Your task to perform on an android device: Go to sound settings Image 0: 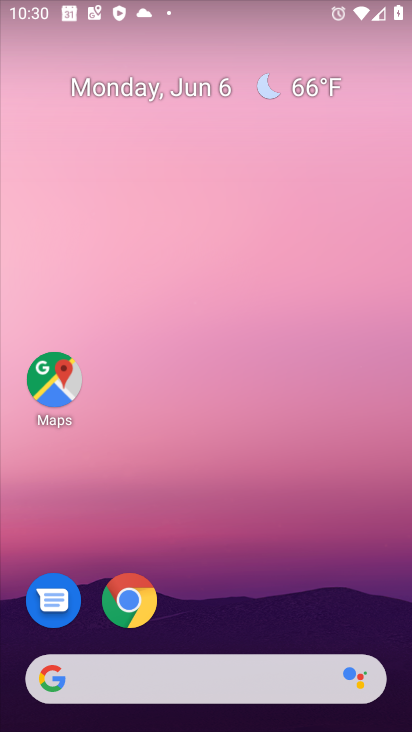
Step 0: drag from (47, 584) to (291, 188)
Your task to perform on an android device: Go to sound settings Image 1: 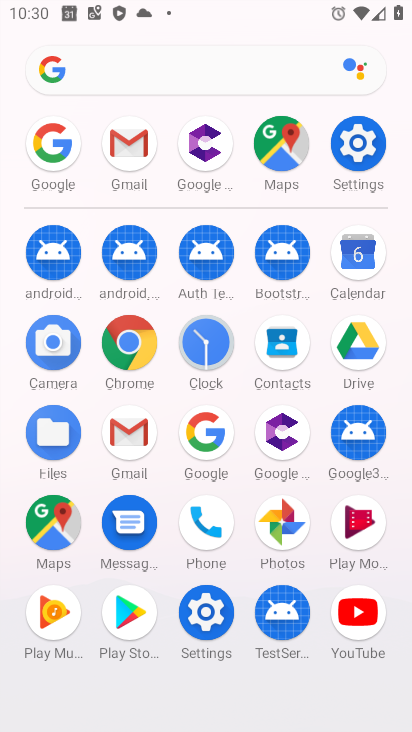
Step 1: click (220, 624)
Your task to perform on an android device: Go to sound settings Image 2: 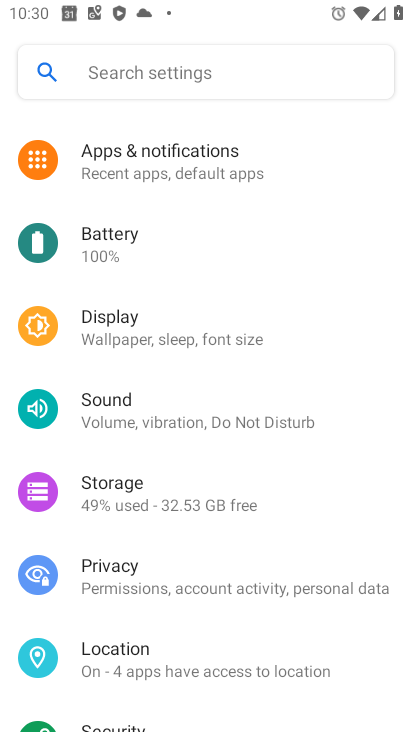
Step 2: click (144, 406)
Your task to perform on an android device: Go to sound settings Image 3: 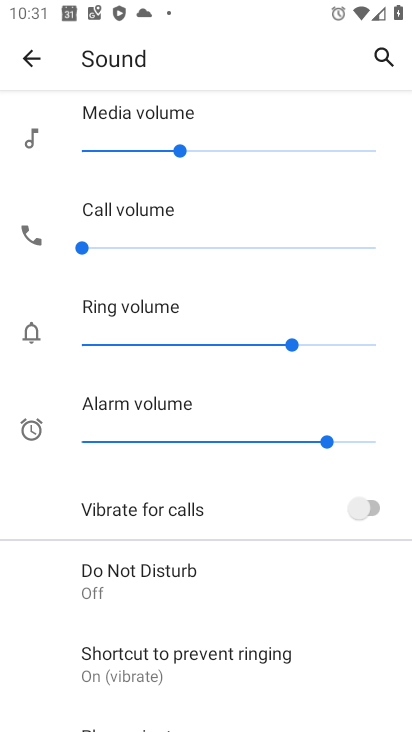
Step 3: task complete